Your task to perform on an android device: What's the weather? Image 0: 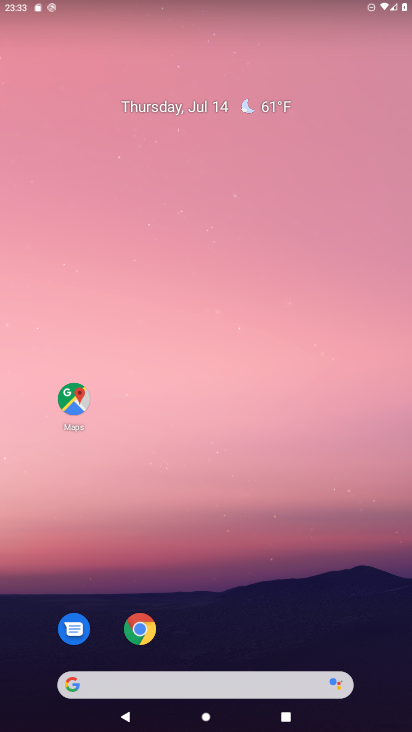
Step 0: click (214, 692)
Your task to perform on an android device: What's the weather? Image 1: 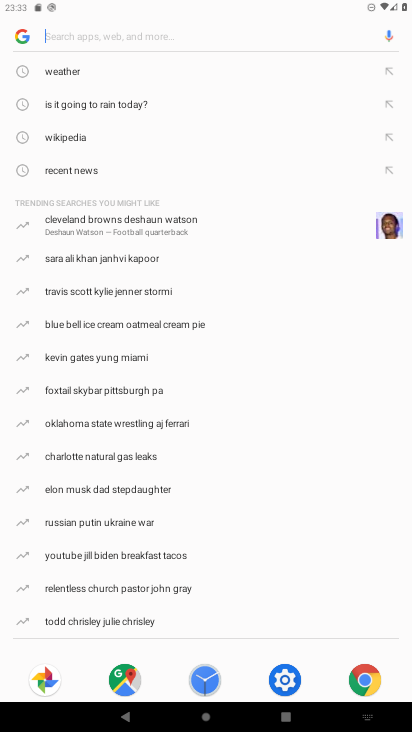
Step 1: click (96, 71)
Your task to perform on an android device: What's the weather? Image 2: 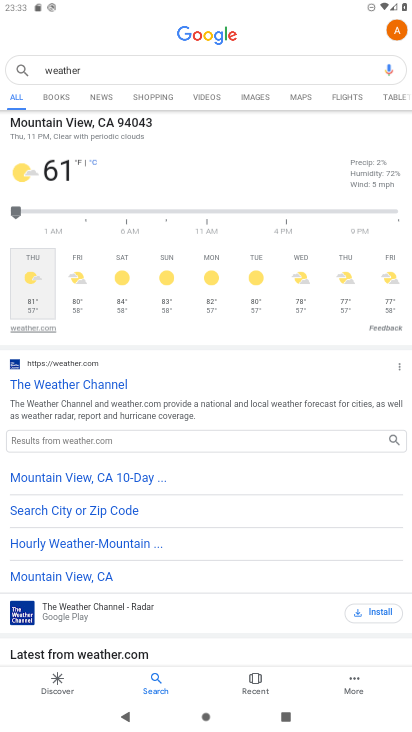
Step 2: task complete